Your task to perform on an android device: Open calendar and show me the second week of next month Image 0: 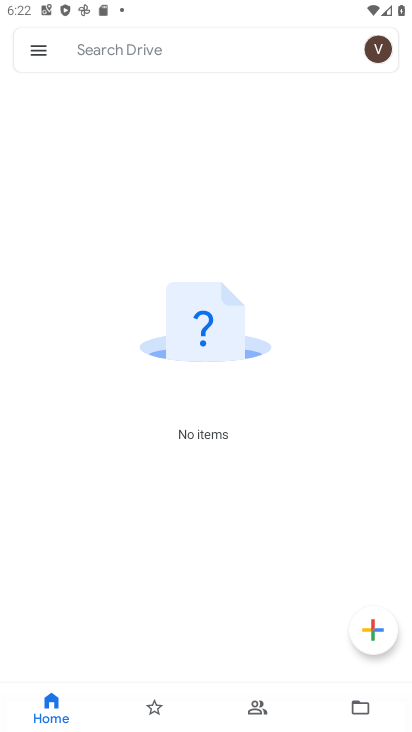
Step 0: press back button
Your task to perform on an android device: Open calendar and show me the second week of next month Image 1: 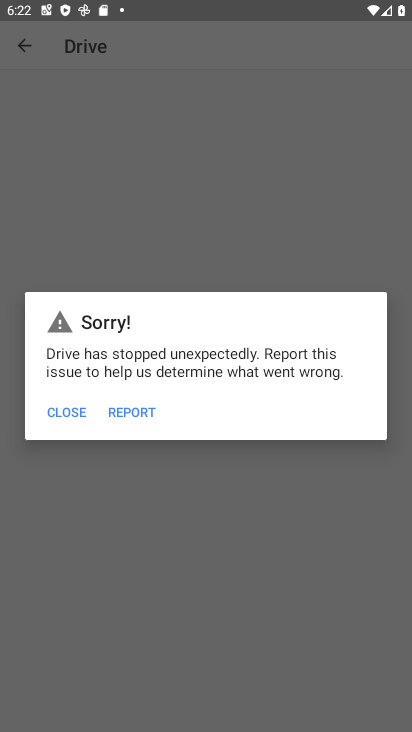
Step 1: press home button
Your task to perform on an android device: Open calendar and show me the second week of next month Image 2: 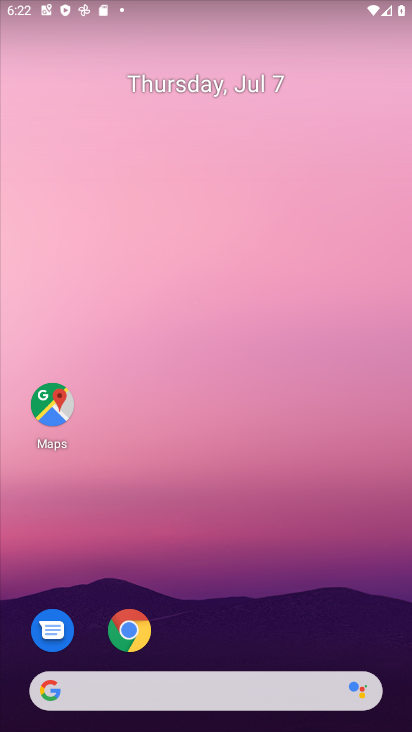
Step 2: drag from (197, 427) to (200, 110)
Your task to perform on an android device: Open calendar and show me the second week of next month Image 3: 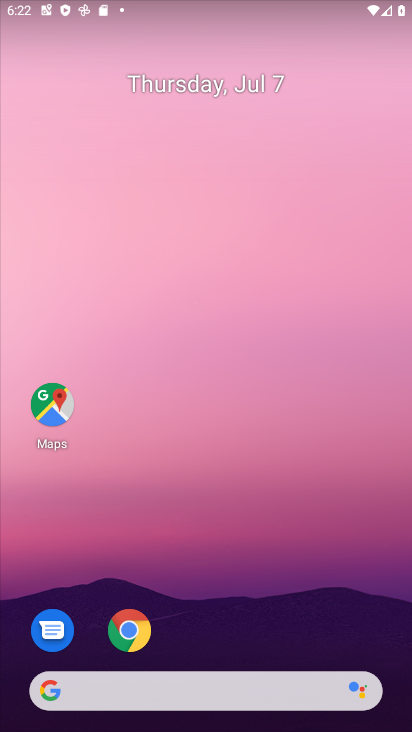
Step 3: drag from (206, 567) to (195, 86)
Your task to perform on an android device: Open calendar and show me the second week of next month Image 4: 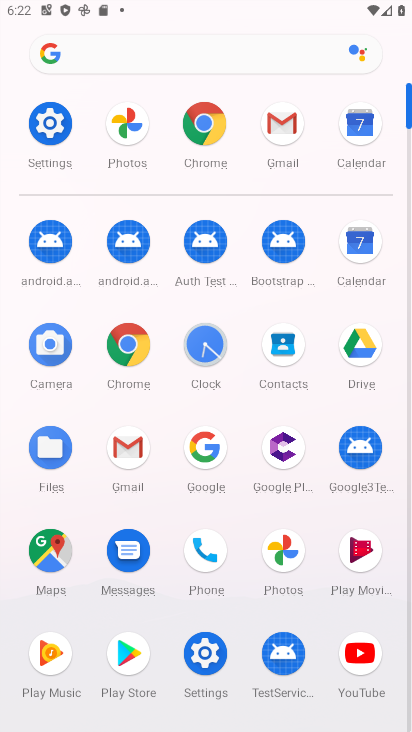
Step 4: click (278, 142)
Your task to perform on an android device: Open calendar and show me the second week of next month Image 5: 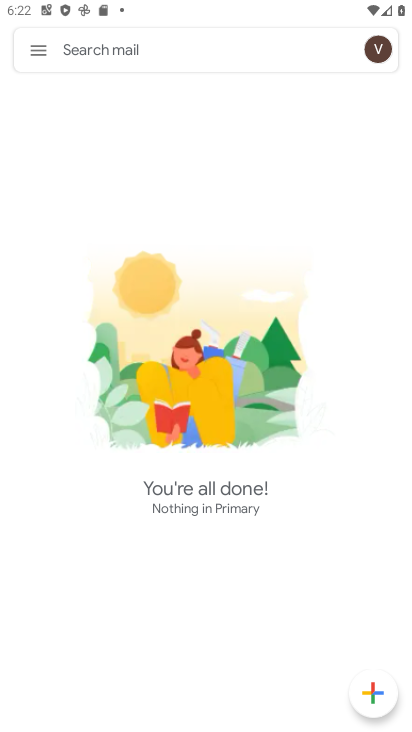
Step 5: press home button
Your task to perform on an android device: Open calendar and show me the second week of next month Image 6: 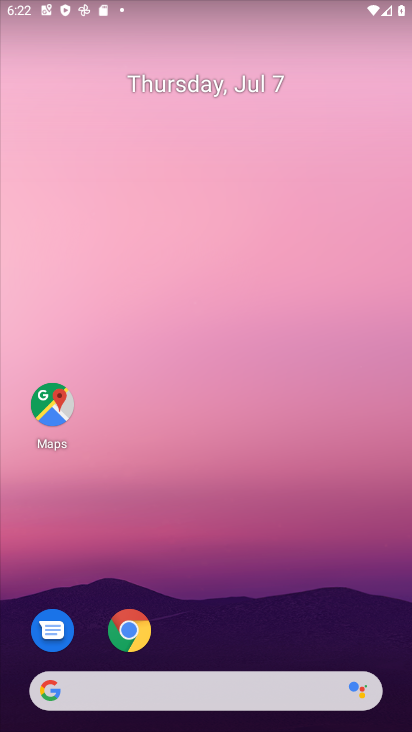
Step 6: drag from (216, 623) to (205, 66)
Your task to perform on an android device: Open calendar and show me the second week of next month Image 7: 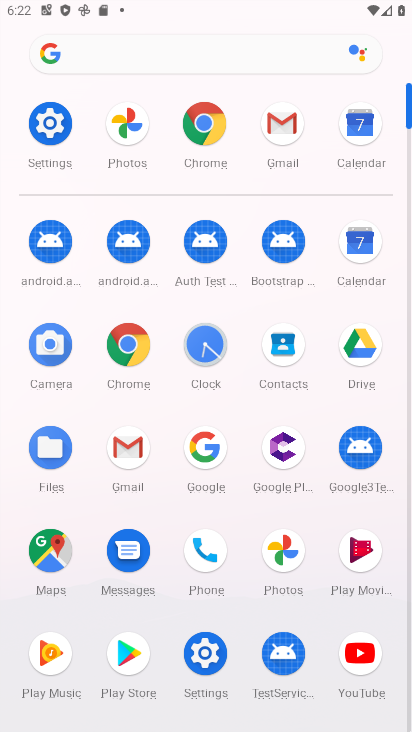
Step 7: click (358, 154)
Your task to perform on an android device: Open calendar and show me the second week of next month Image 8: 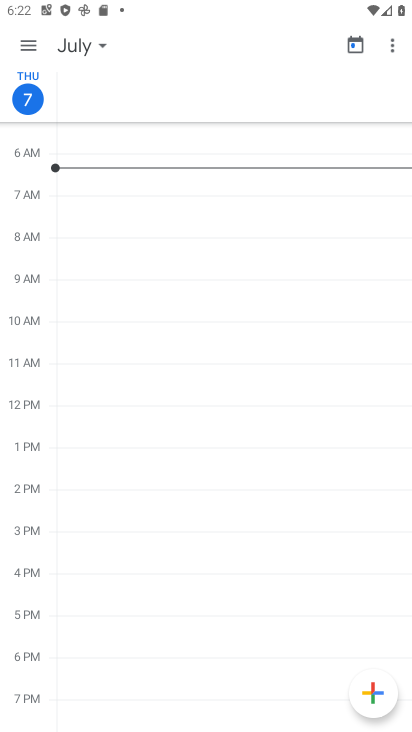
Step 8: click (32, 42)
Your task to perform on an android device: Open calendar and show me the second week of next month Image 9: 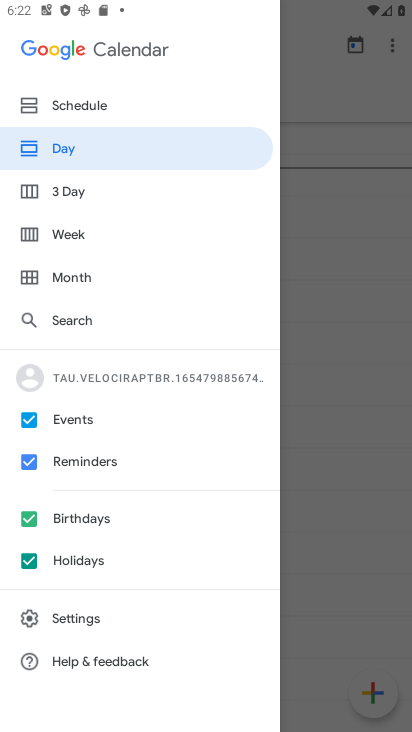
Step 9: click (62, 241)
Your task to perform on an android device: Open calendar and show me the second week of next month Image 10: 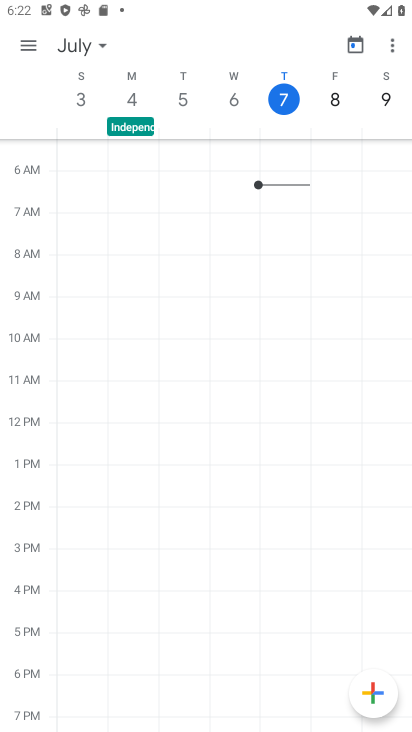
Step 10: drag from (275, 267) to (142, 299)
Your task to perform on an android device: Open calendar and show me the second week of next month Image 11: 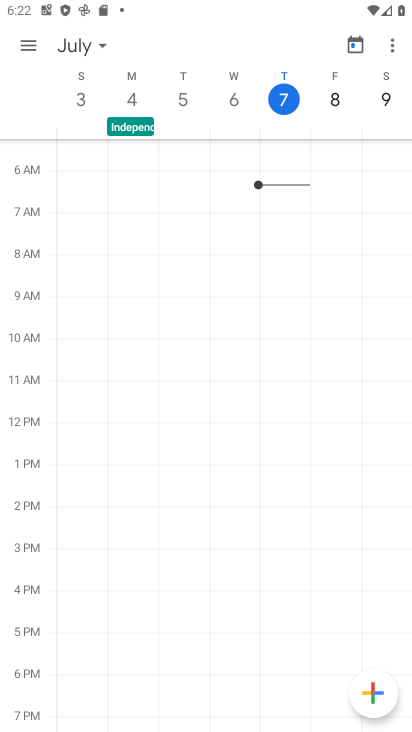
Step 11: click (47, 273)
Your task to perform on an android device: Open calendar and show me the second week of next month Image 12: 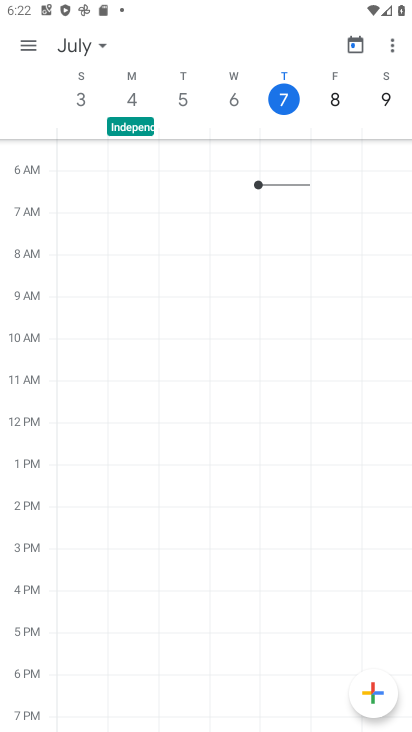
Step 12: drag from (337, 286) to (55, 292)
Your task to perform on an android device: Open calendar and show me the second week of next month Image 13: 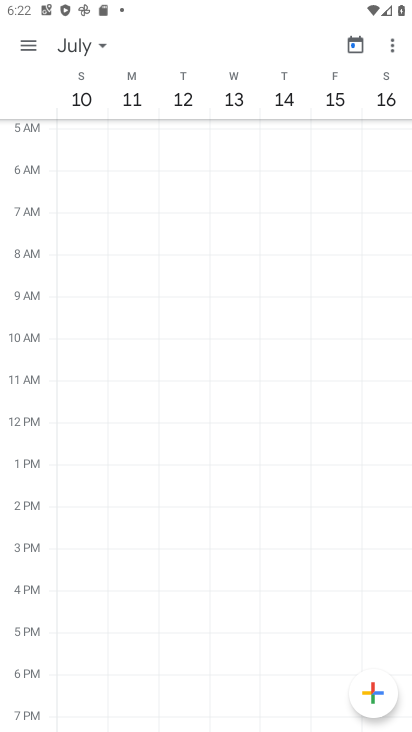
Step 13: click (350, 40)
Your task to perform on an android device: Open calendar and show me the second week of next month Image 14: 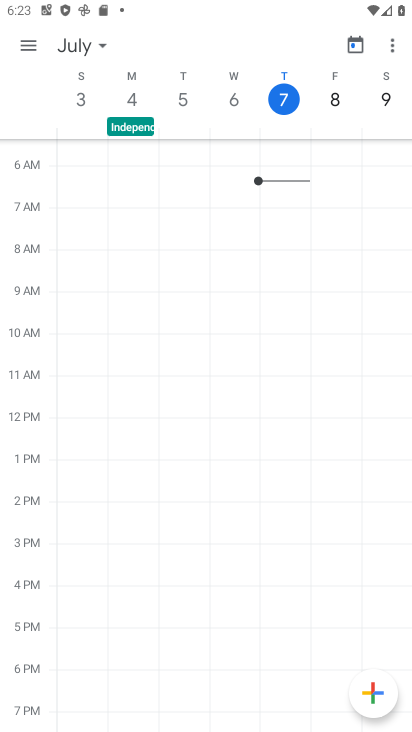
Step 14: click (85, 45)
Your task to perform on an android device: Open calendar and show me the second week of next month Image 15: 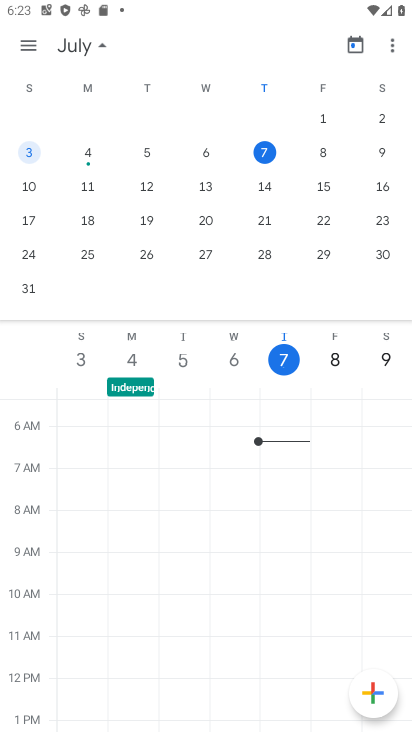
Step 15: drag from (216, 219) to (40, 220)
Your task to perform on an android device: Open calendar and show me the second week of next month Image 16: 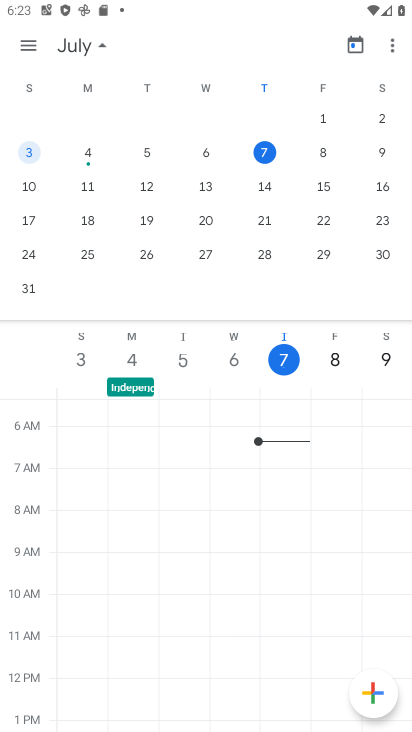
Step 16: drag from (174, 220) to (12, 220)
Your task to perform on an android device: Open calendar and show me the second week of next month Image 17: 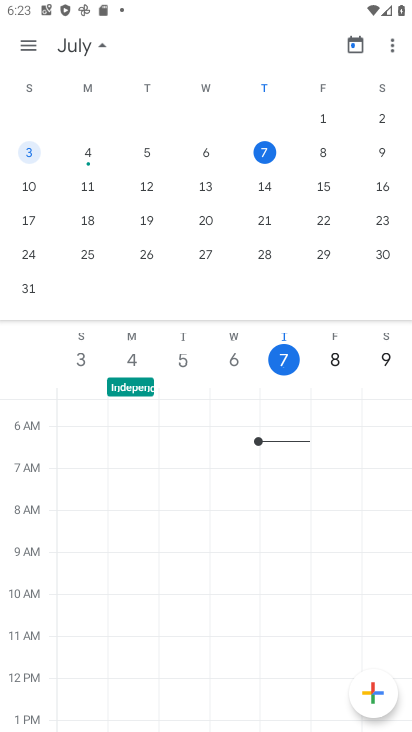
Step 17: drag from (372, 198) to (78, 181)
Your task to perform on an android device: Open calendar and show me the second week of next month Image 18: 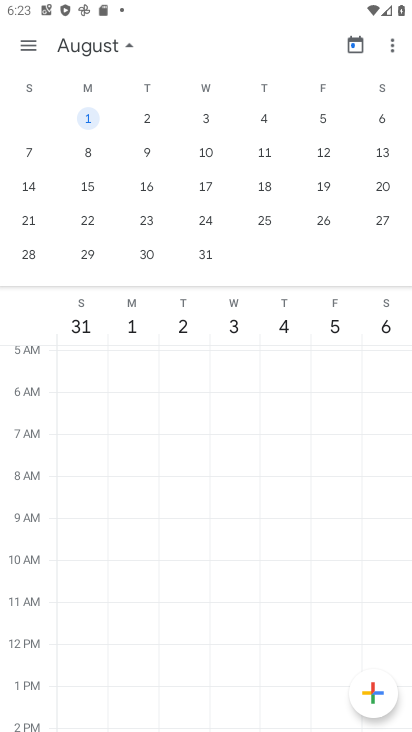
Step 18: click (30, 151)
Your task to perform on an android device: Open calendar and show me the second week of next month Image 19: 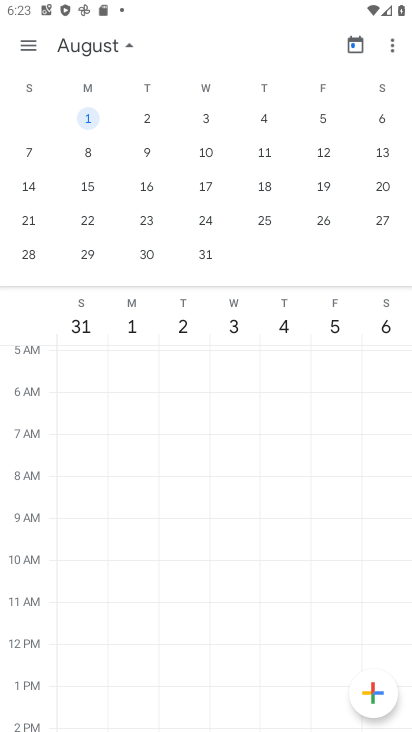
Step 19: click (30, 151)
Your task to perform on an android device: Open calendar and show me the second week of next month Image 20: 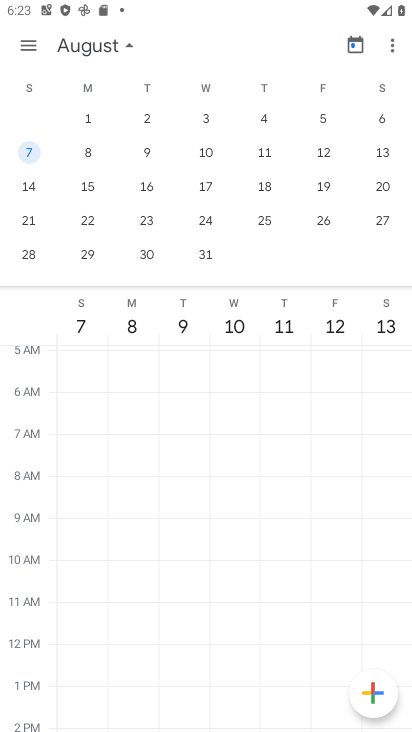
Step 20: task complete